Your task to perform on an android device: turn on showing notifications on the lock screen Image 0: 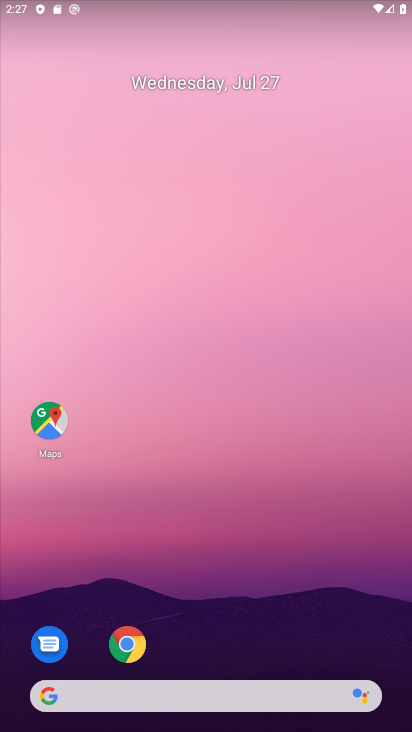
Step 0: drag from (237, 602) to (260, 43)
Your task to perform on an android device: turn on showing notifications on the lock screen Image 1: 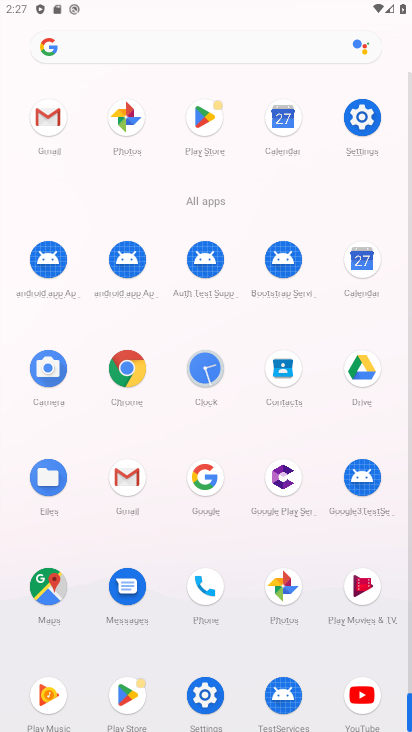
Step 1: click (201, 685)
Your task to perform on an android device: turn on showing notifications on the lock screen Image 2: 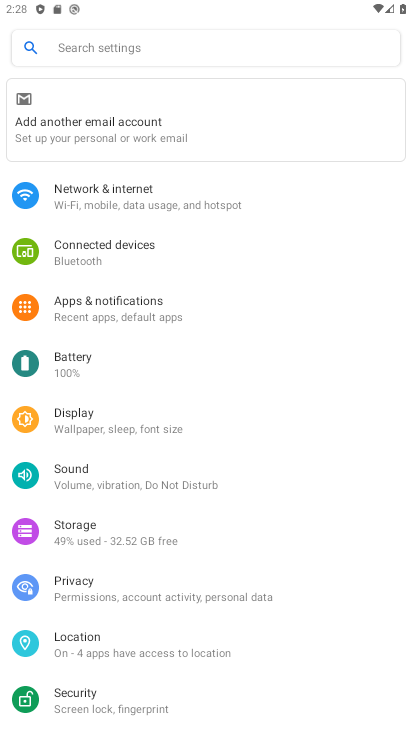
Step 2: click (129, 309)
Your task to perform on an android device: turn on showing notifications on the lock screen Image 3: 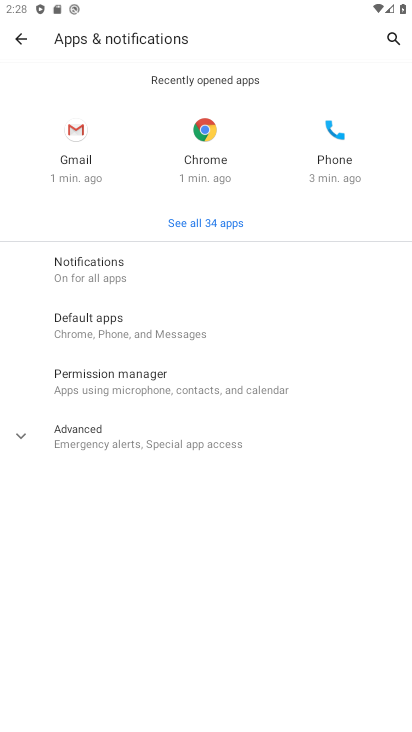
Step 3: click (117, 282)
Your task to perform on an android device: turn on showing notifications on the lock screen Image 4: 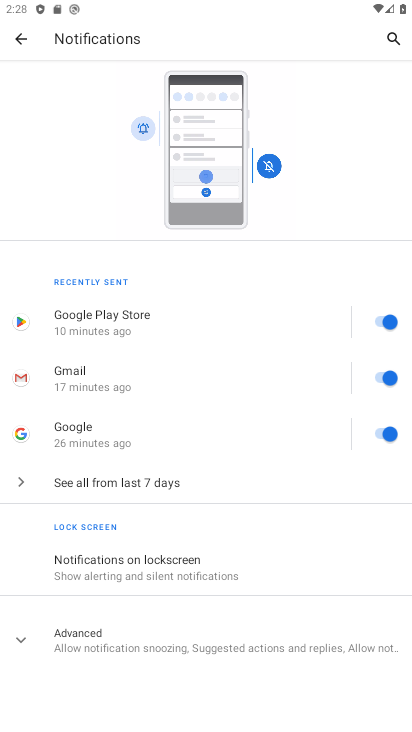
Step 4: click (172, 563)
Your task to perform on an android device: turn on showing notifications on the lock screen Image 5: 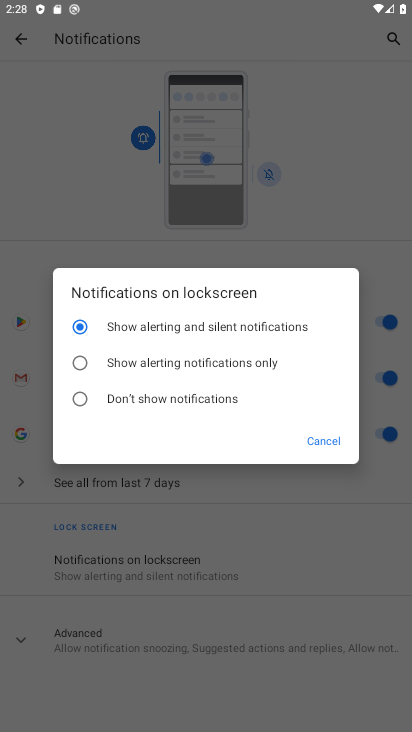
Step 5: task complete